Your task to perform on an android device: Open the calendar and show me this week's events? Image 0: 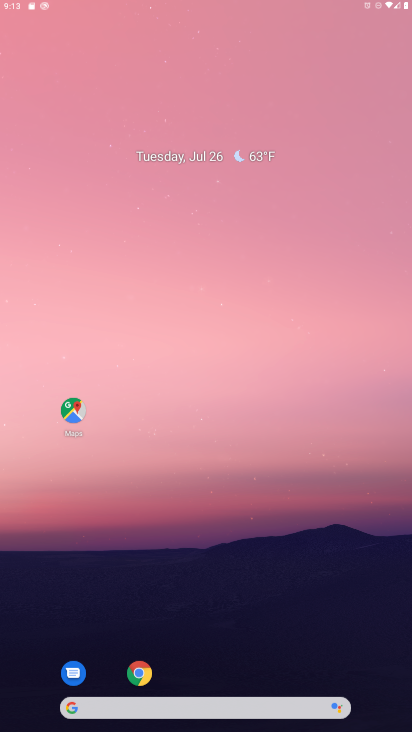
Step 0: drag from (156, 310) to (112, 63)
Your task to perform on an android device: Open the calendar and show me this week's events? Image 1: 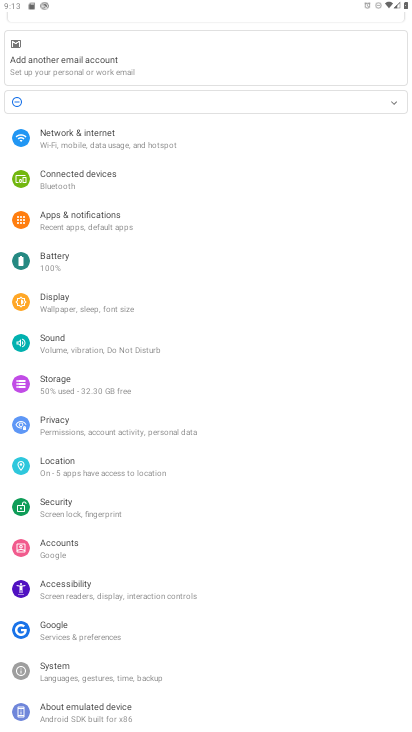
Step 1: press home button
Your task to perform on an android device: Open the calendar and show me this week's events? Image 2: 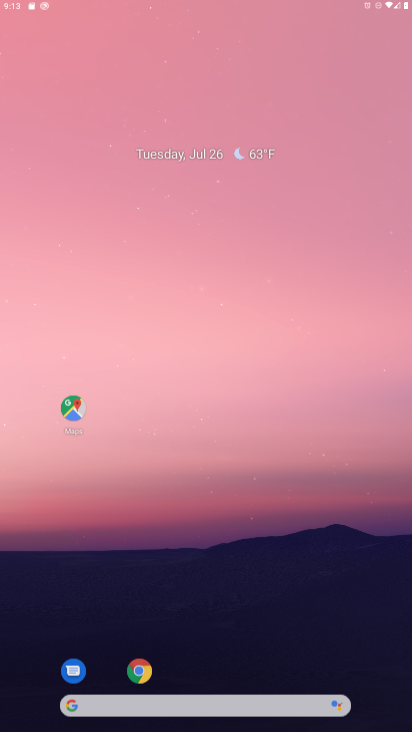
Step 2: drag from (337, 660) to (164, 46)
Your task to perform on an android device: Open the calendar and show me this week's events? Image 3: 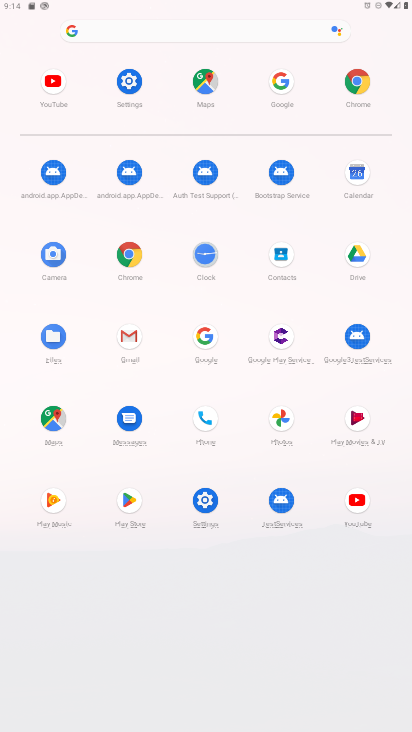
Step 3: click (351, 181)
Your task to perform on an android device: Open the calendar and show me this week's events? Image 4: 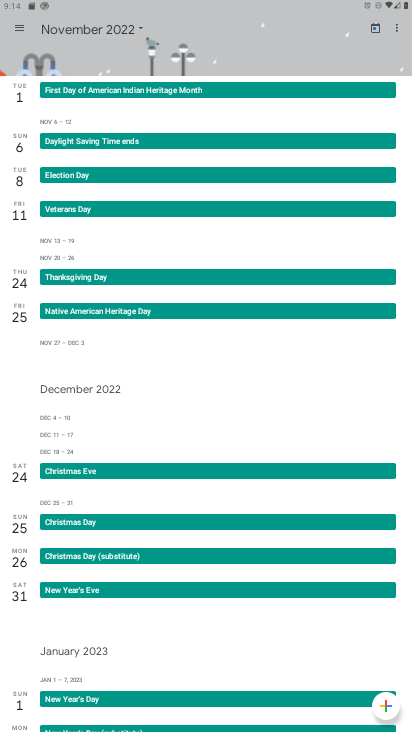
Step 4: task complete